Your task to perform on an android device: Open CNN.com Image 0: 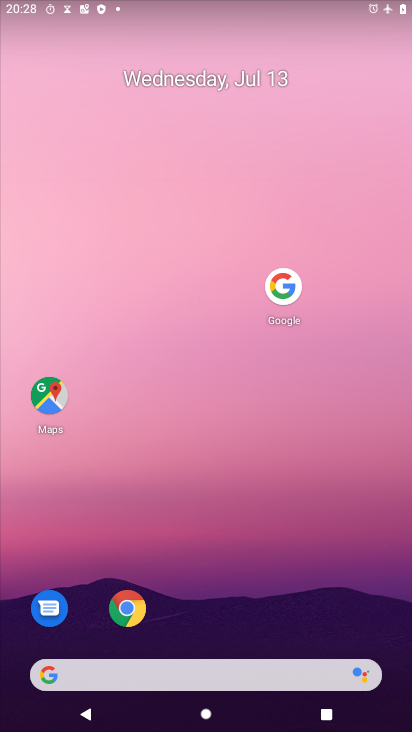
Step 0: click (129, 605)
Your task to perform on an android device: Open CNN.com Image 1: 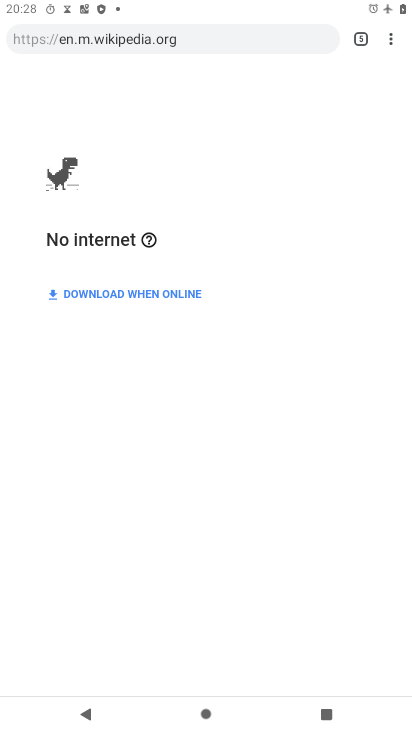
Step 1: click (363, 44)
Your task to perform on an android device: Open CNN.com Image 2: 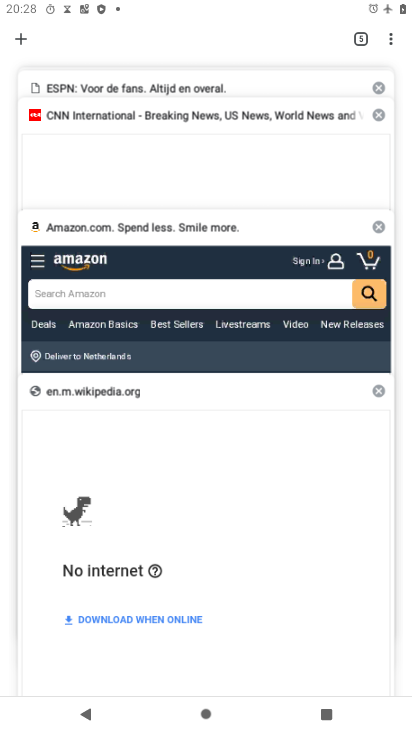
Step 2: click (212, 118)
Your task to perform on an android device: Open CNN.com Image 3: 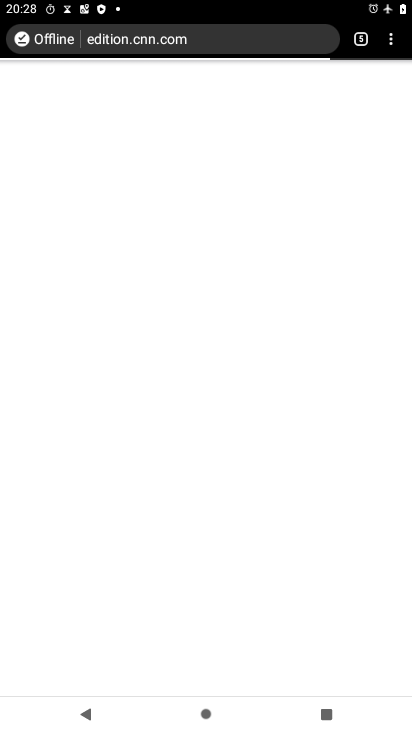
Step 3: task complete